Your task to perform on an android device: Search for jbl flip 4 on newegg.com, select the first entry, and add it to the cart. Image 0: 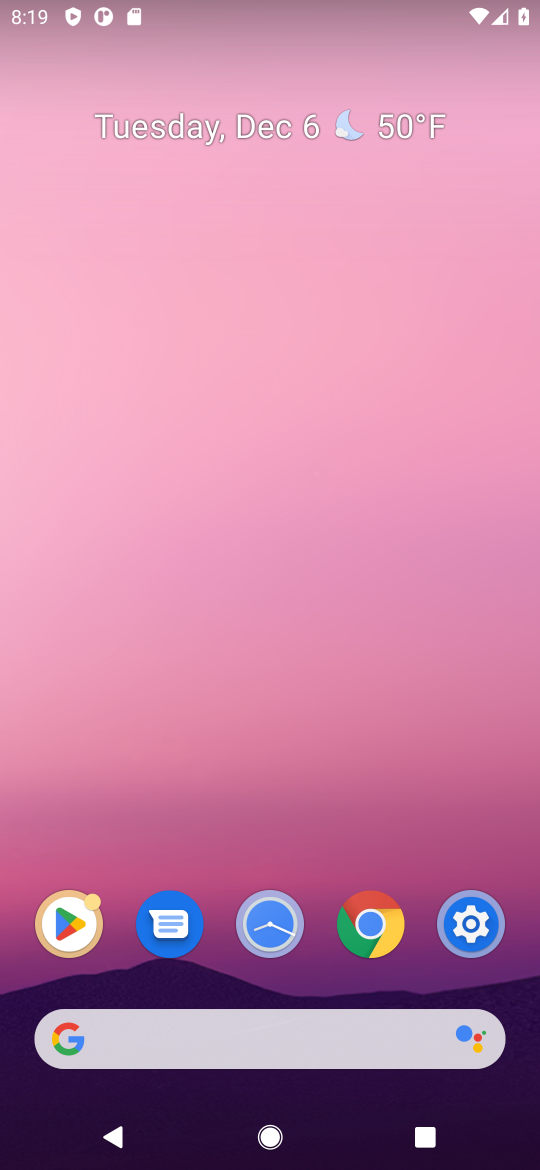
Step 0: click (341, 1052)
Your task to perform on an android device: Search for jbl flip 4 on newegg.com, select the first entry, and add it to the cart. Image 1: 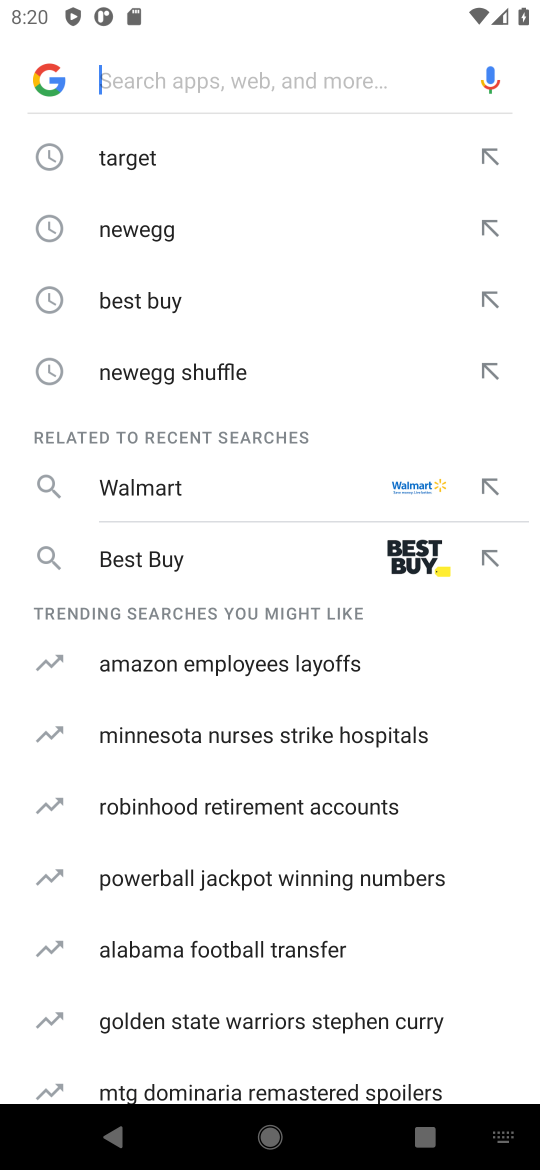
Step 1: type "jbl newgg"
Your task to perform on an android device: Search for jbl flip 4 on newegg.com, select the first entry, and add it to the cart. Image 2: 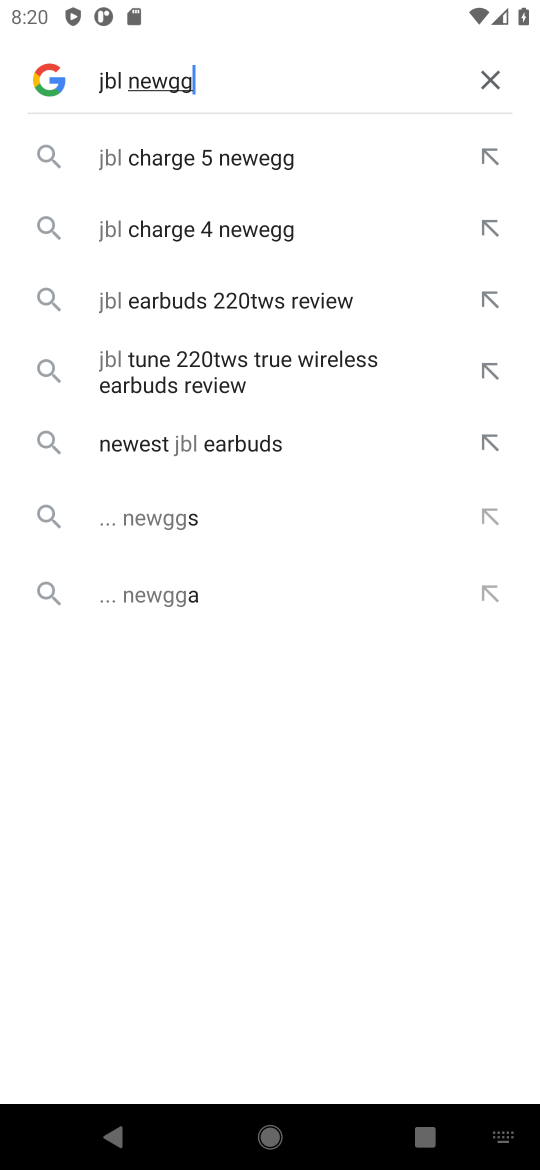
Step 2: task complete